Your task to perform on an android device: Go to wifi settings Image 0: 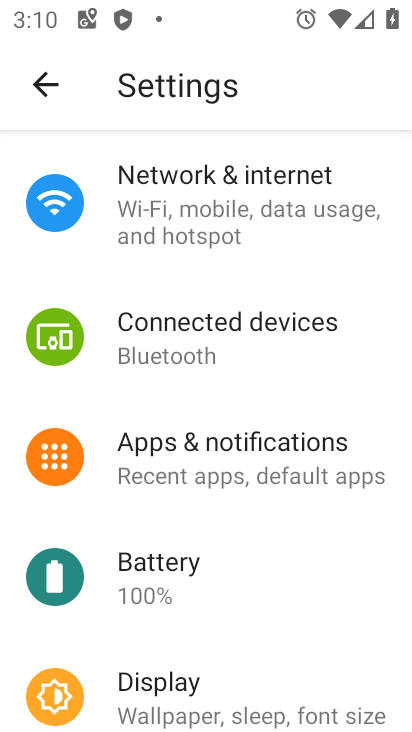
Step 0: click (302, 214)
Your task to perform on an android device: Go to wifi settings Image 1: 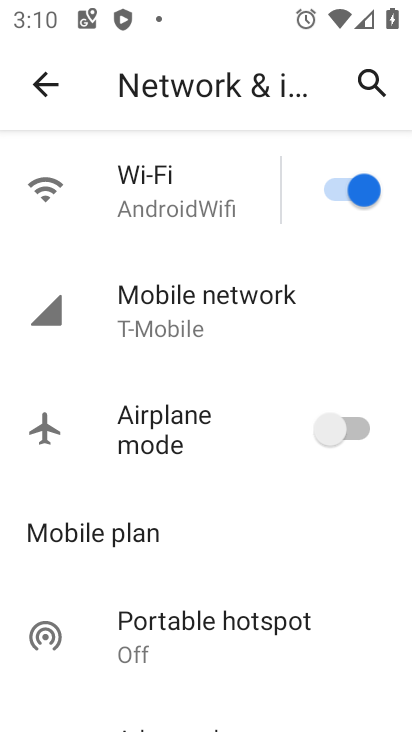
Step 1: click (159, 184)
Your task to perform on an android device: Go to wifi settings Image 2: 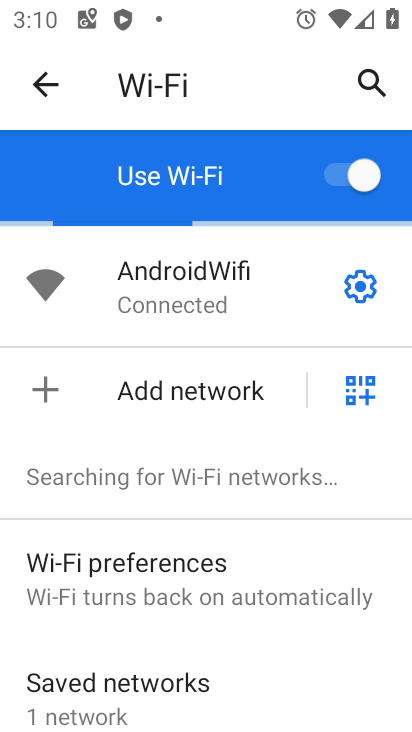
Step 2: task complete